Your task to perform on an android device: Open Google Image 0: 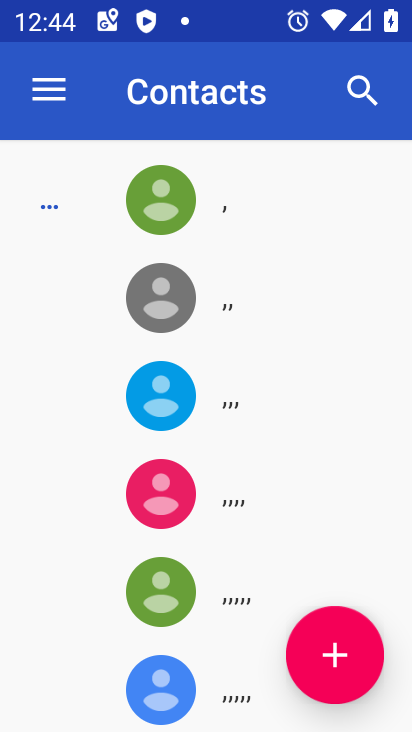
Step 0: press home button
Your task to perform on an android device: Open Google Image 1: 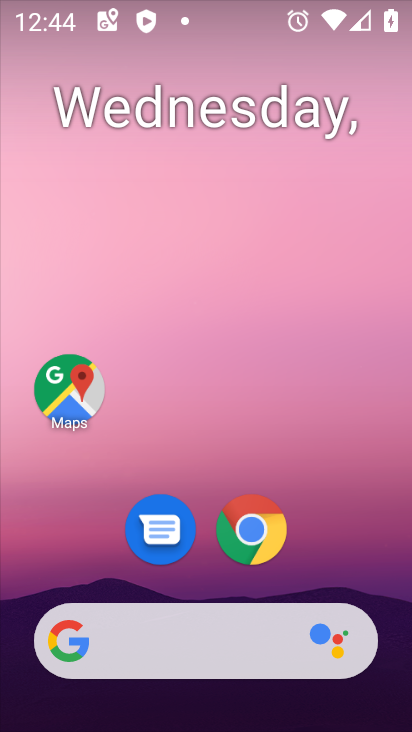
Step 1: click (254, 529)
Your task to perform on an android device: Open Google Image 2: 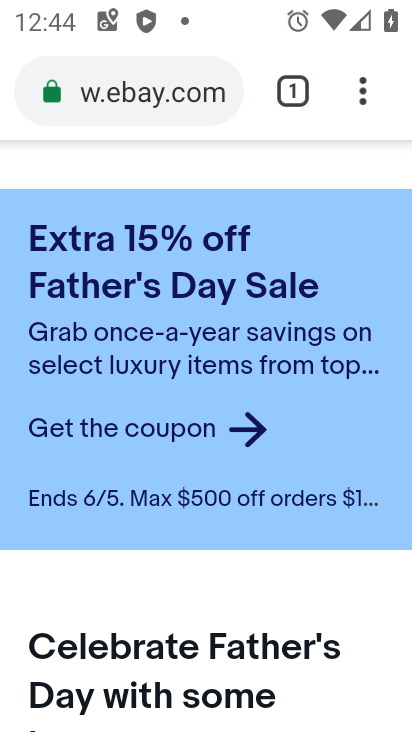
Step 2: task complete